Your task to perform on an android device: Search for seafood restaurants on Google Maps Image 0: 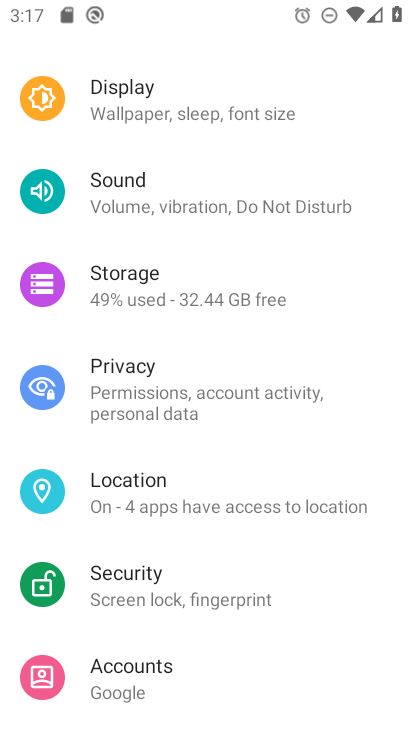
Step 0: drag from (288, 84) to (277, 535)
Your task to perform on an android device: Search for seafood restaurants on Google Maps Image 1: 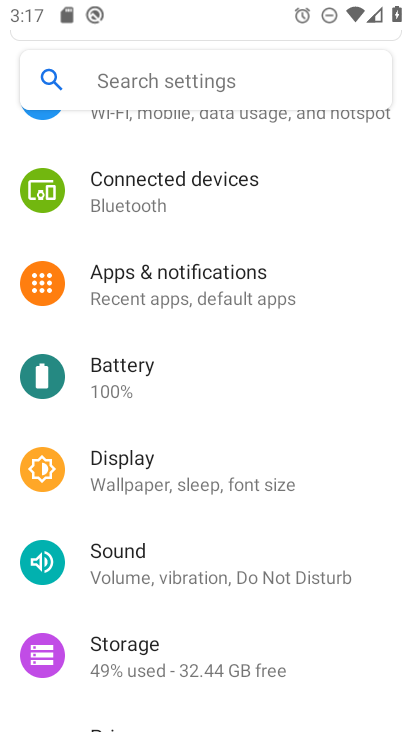
Step 1: press back button
Your task to perform on an android device: Search for seafood restaurants on Google Maps Image 2: 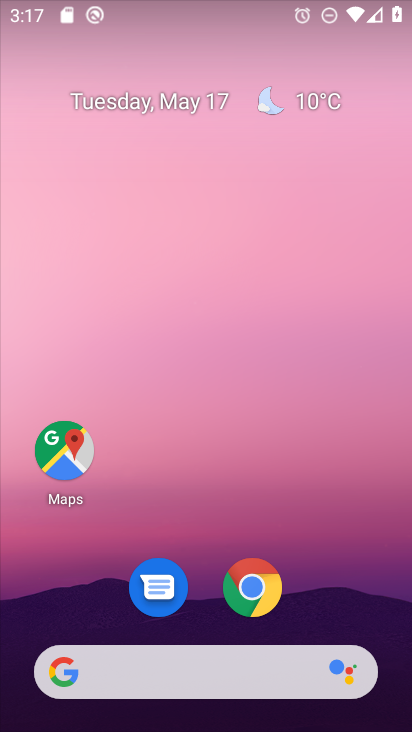
Step 2: drag from (319, 566) to (252, 16)
Your task to perform on an android device: Search for seafood restaurants on Google Maps Image 3: 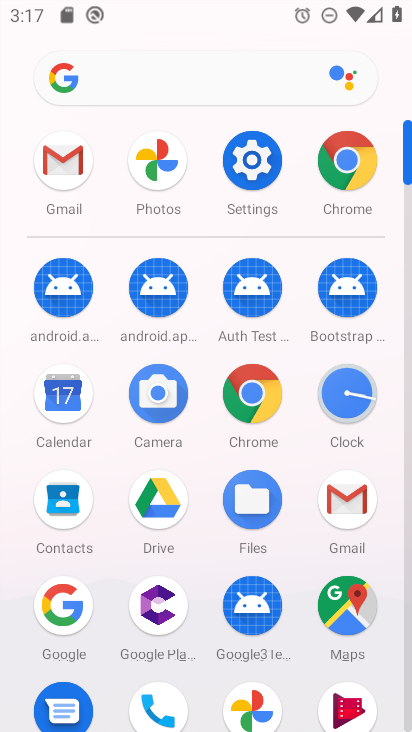
Step 3: click (343, 604)
Your task to perform on an android device: Search for seafood restaurants on Google Maps Image 4: 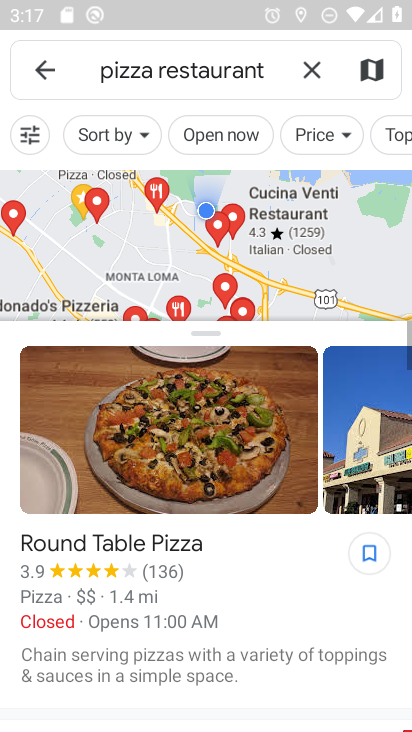
Step 4: click (301, 61)
Your task to perform on an android device: Search for seafood restaurants on Google Maps Image 5: 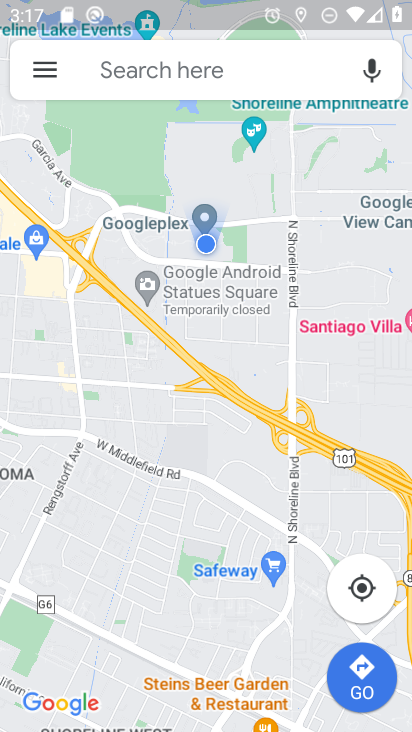
Step 5: click (227, 66)
Your task to perform on an android device: Search for seafood restaurants on Google Maps Image 6: 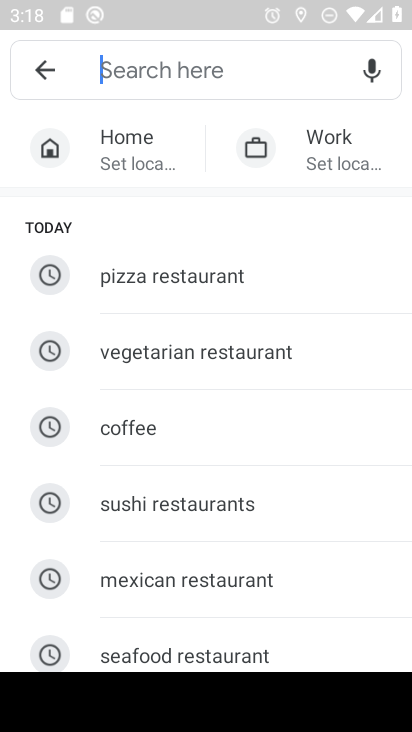
Step 6: click (250, 645)
Your task to perform on an android device: Search for seafood restaurants on Google Maps Image 7: 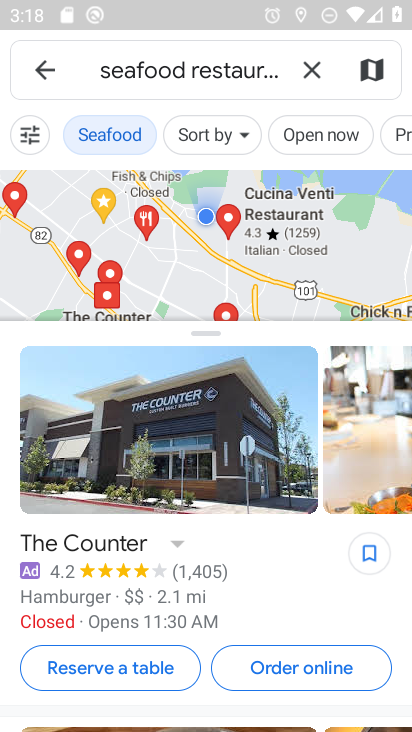
Step 7: task complete